Your task to perform on an android device: find snoozed emails in the gmail app Image 0: 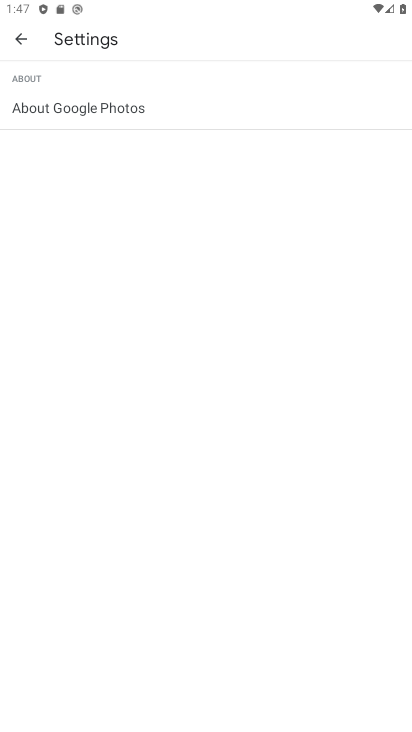
Step 0: press home button
Your task to perform on an android device: find snoozed emails in the gmail app Image 1: 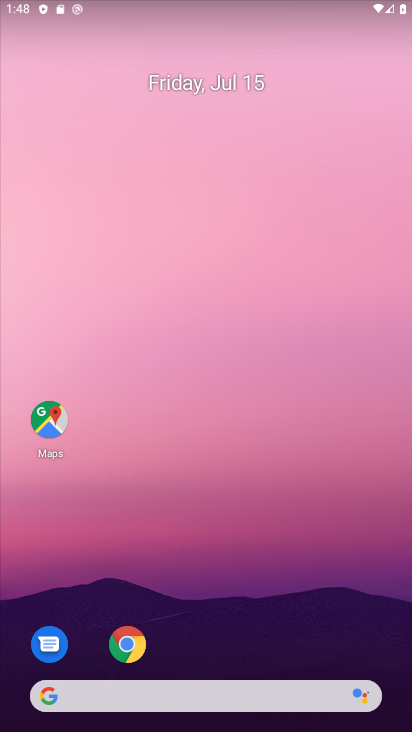
Step 1: drag from (83, 623) to (365, 195)
Your task to perform on an android device: find snoozed emails in the gmail app Image 2: 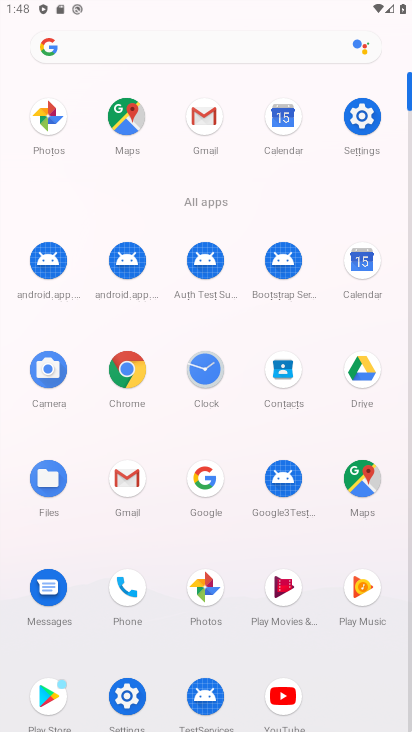
Step 2: click (138, 475)
Your task to perform on an android device: find snoozed emails in the gmail app Image 3: 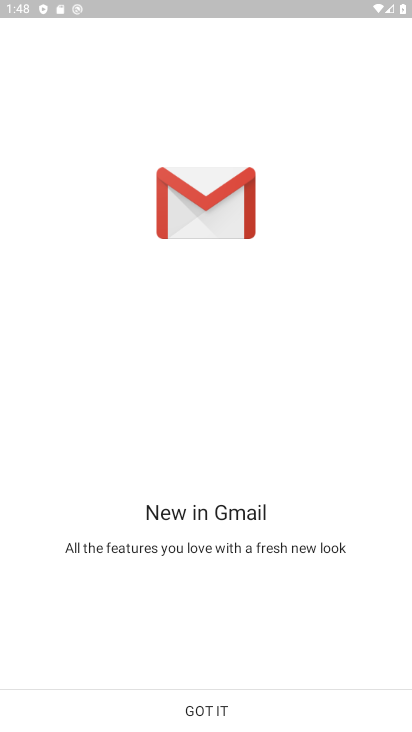
Step 3: click (224, 711)
Your task to perform on an android device: find snoozed emails in the gmail app Image 4: 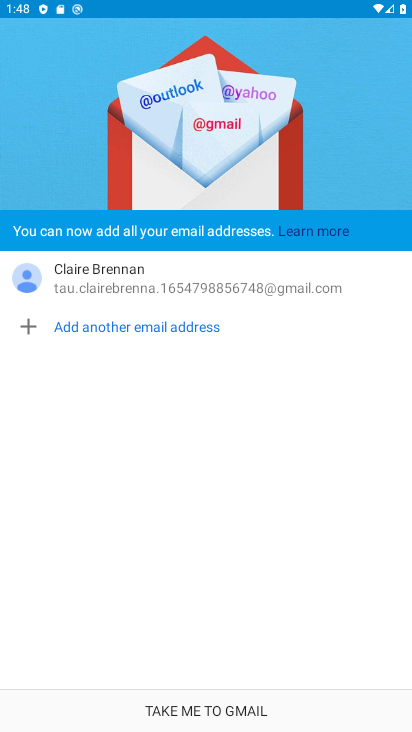
Step 4: click (210, 710)
Your task to perform on an android device: find snoozed emails in the gmail app Image 5: 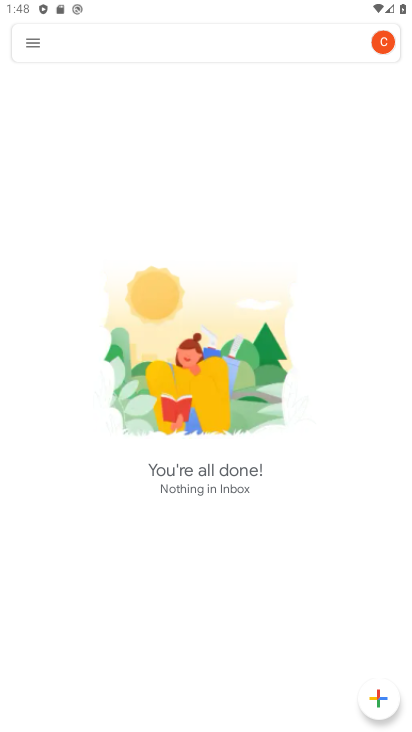
Step 5: click (29, 44)
Your task to perform on an android device: find snoozed emails in the gmail app Image 6: 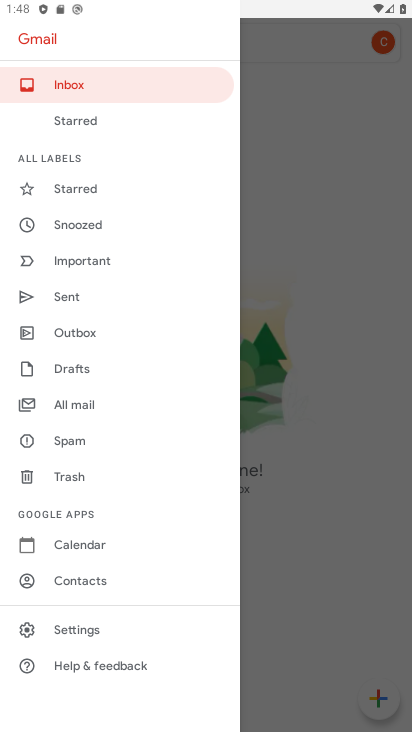
Step 6: click (79, 218)
Your task to perform on an android device: find snoozed emails in the gmail app Image 7: 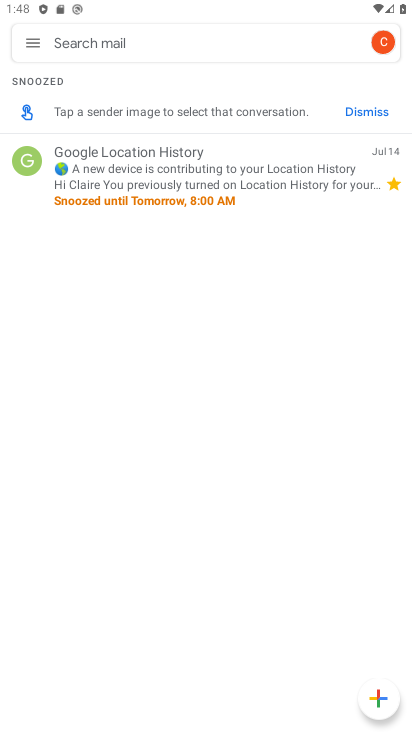
Step 7: task complete